Your task to perform on an android device: toggle data saver in the chrome app Image 0: 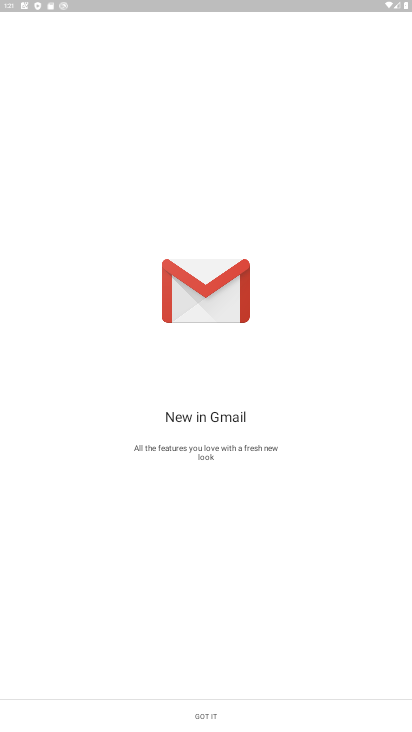
Step 0: press home button
Your task to perform on an android device: toggle data saver in the chrome app Image 1: 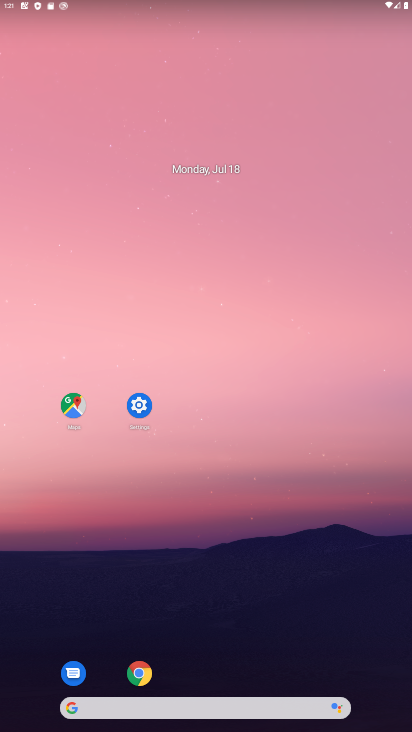
Step 1: click (140, 671)
Your task to perform on an android device: toggle data saver in the chrome app Image 2: 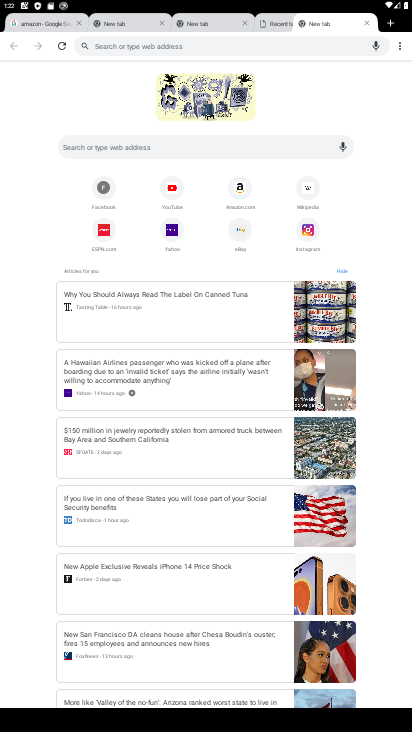
Step 2: click (401, 46)
Your task to perform on an android device: toggle data saver in the chrome app Image 3: 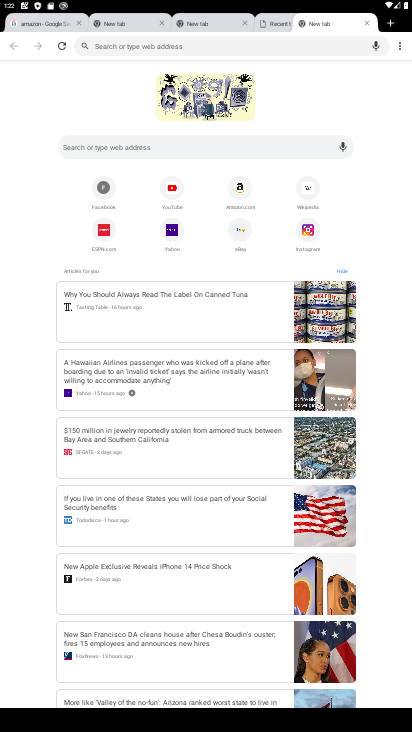
Step 3: click (400, 40)
Your task to perform on an android device: toggle data saver in the chrome app Image 4: 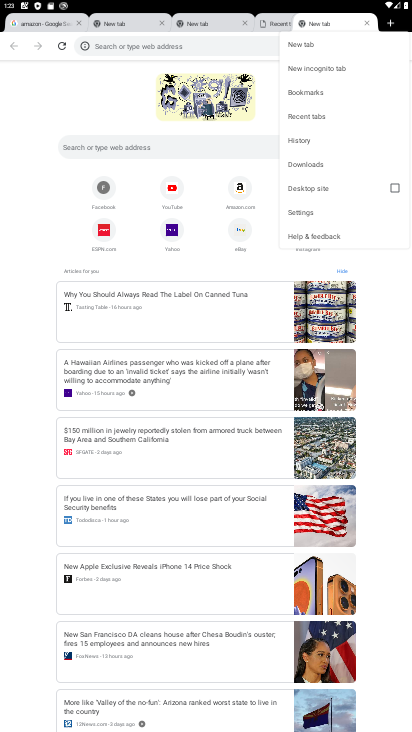
Step 4: click (291, 214)
Your task to perform on an android device: toggle data saver in the chrome app Image 5: 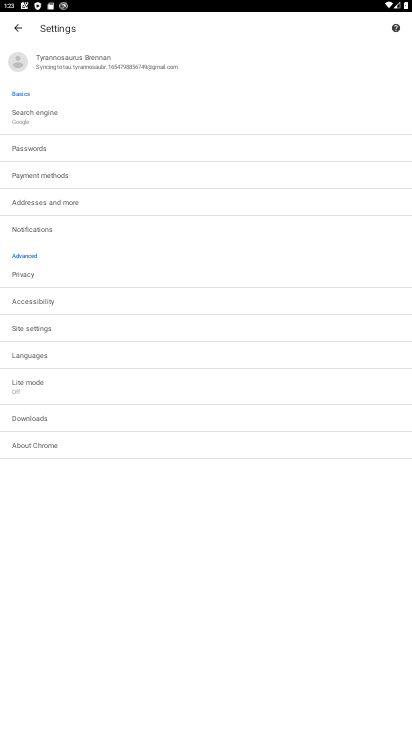
Step 5: click (37, 381)
Your task to perform on an android device: toggle data saver in the chrome app Image 6: 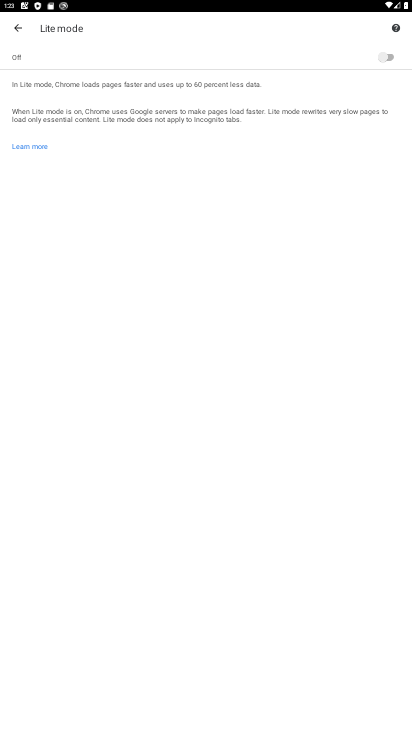
Step 6: click (388, 53)
Your task to perform on an android device: toggle data saver in the chrome app Image 7: 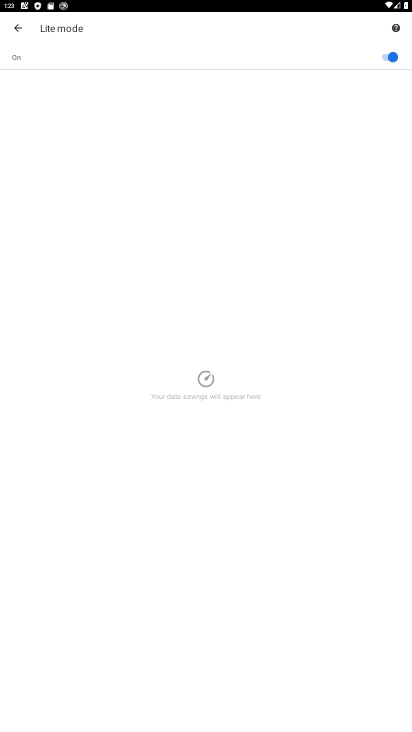
Step 7: task complete